Your task to perform on an android device: set an alarm Image 0: 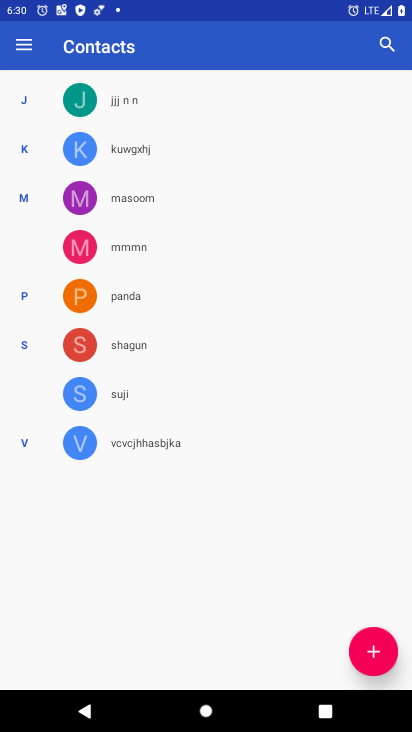
Step 0: press home button
Your task to perform on an android device: set an alarm Image 1: 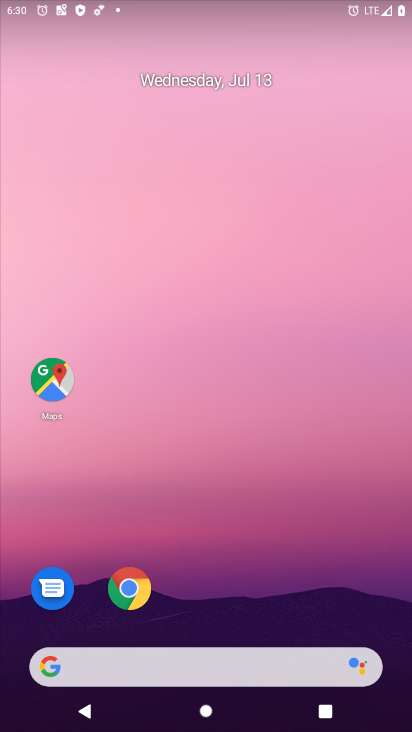
Step 1: drag from (185, 498) to (150, 0)
Your task to perform on an android device: set an alarm Image 2: 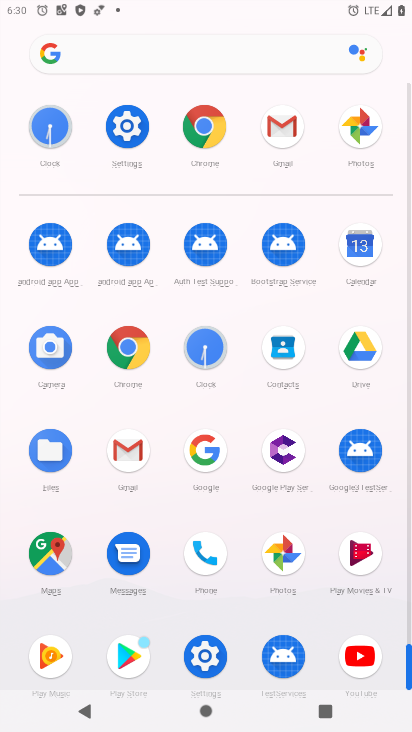
Step 2: click (53, 116)
Your task to perform on an android device: set an alarm Image 3: 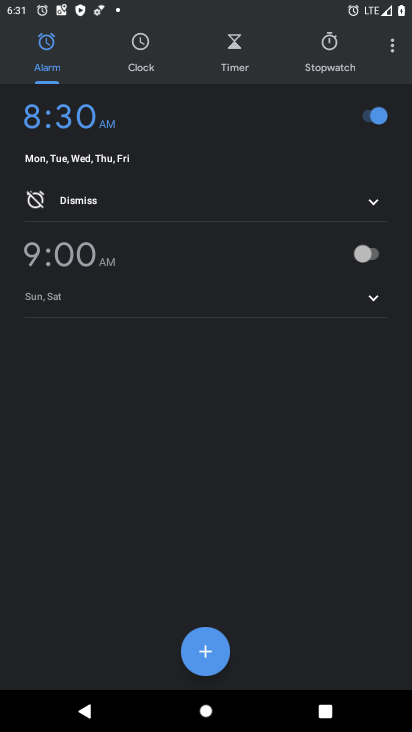
Step 3: click (377, 254)
Your task to perform on an android device: set an alarm Image 4: 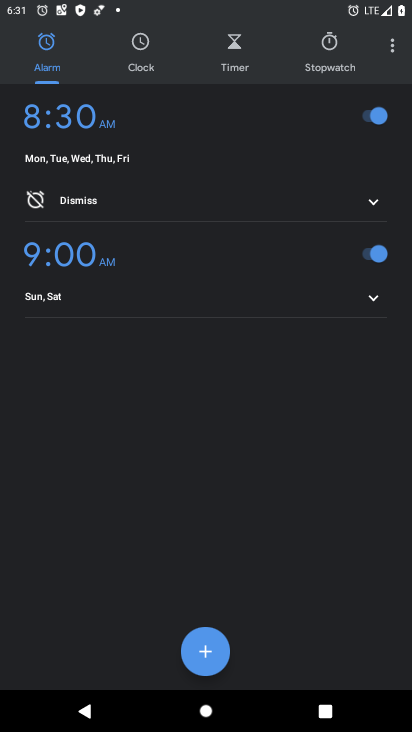
Step 4: task complete